Your task to perform on an android device: Search for sushi restaurants on Maps Image 0: 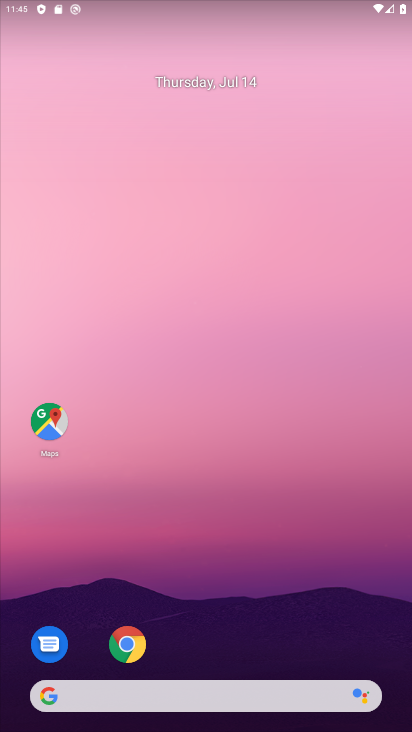
Step 0: click (63, 435)
Your task to perform on an android device: Search for sushi restaurants on Maps Image 1: 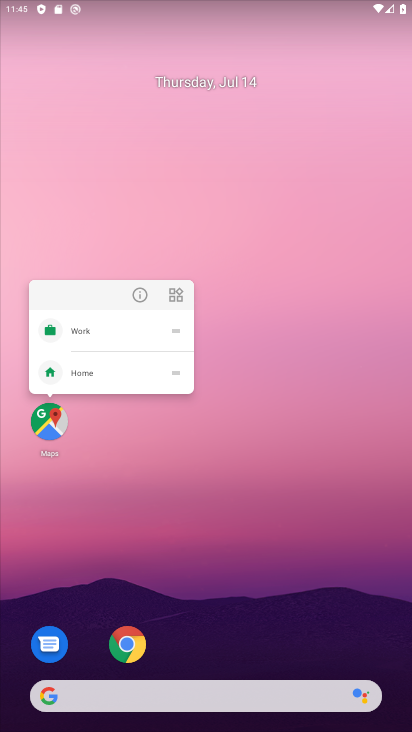
Step 1: click (53, 424)
Your task to perform on an android device: Search for sushi restaurants on Maps Image 2: 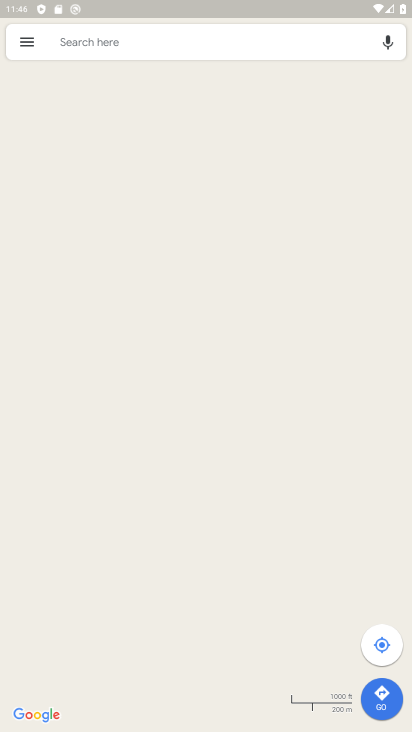
Step 2: click (91, 36)
Your task to perform on an android device: Search for sushi restaurants on Maps Image 3: 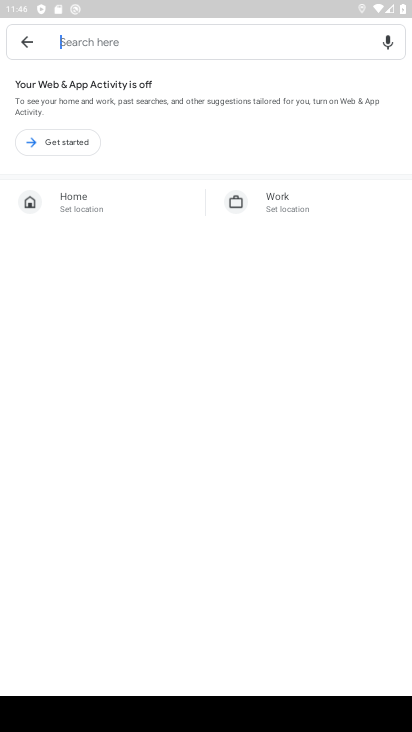
Step 3: click (115, 35)
Your task to perform on an android device: Search for sushi restaurants on Maps Image 4: 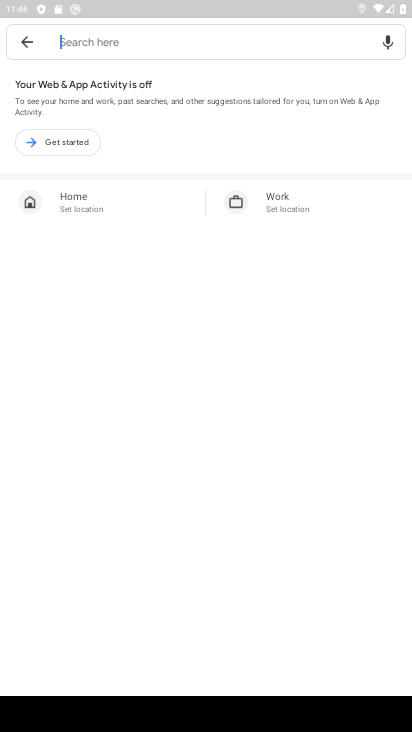
Step 4: type " sushi restaurants"
Your task to perform on an android device: Search for sushi restaurants on Maps Image 5: 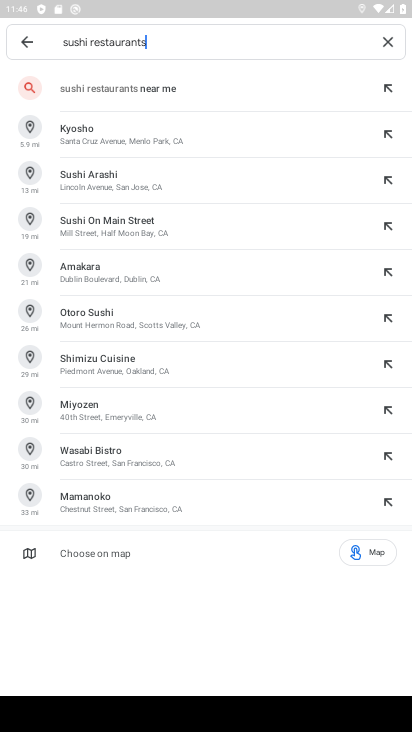
Step 5: click (91, 87)
Your task to perform on an android device: Search for sushi restaurants on Maps Image 6: 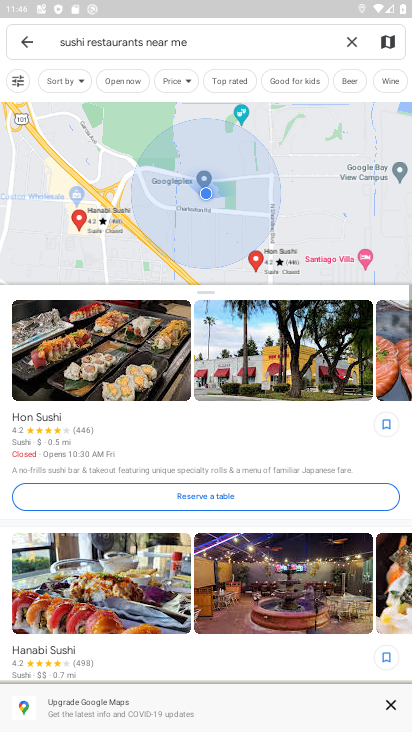
Step 6: task complete